Your task to perform on an android device: toggle notification dots Image 0: 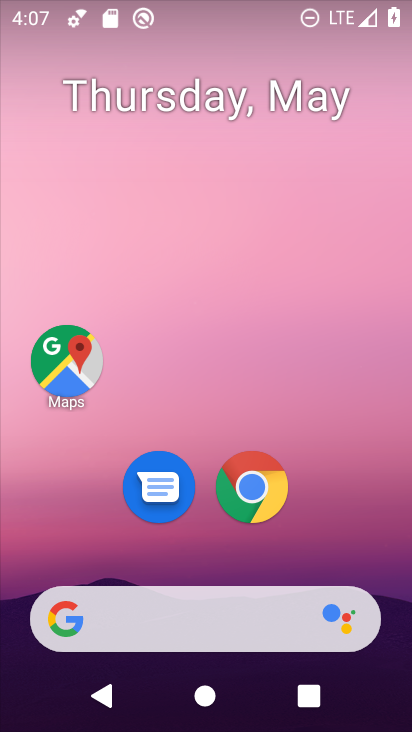
Step 0: drag from (261, 648) to (289, 232)
Your task to perform on an android device: toggle notification dots Image 1: 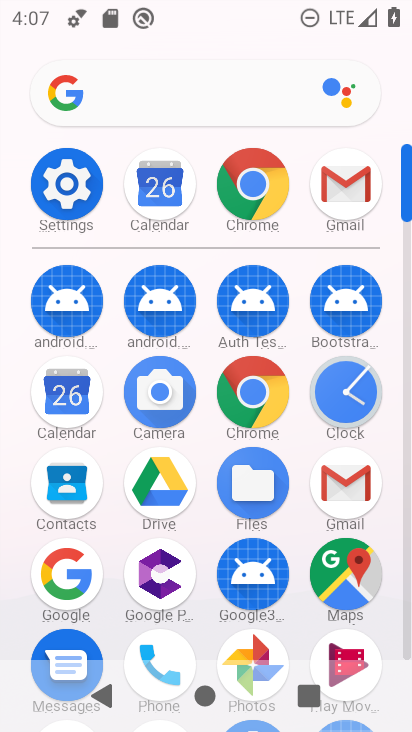
Step 1: click (81, 214)
Your task to perform on an android device: toggle notification dots Image 2: 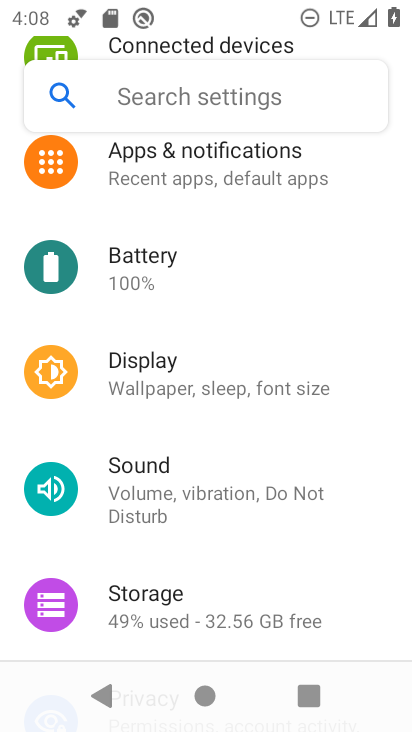
Step 2: click (259, 181)
Your task to perform on an android device: toggle notification dots Image 3: 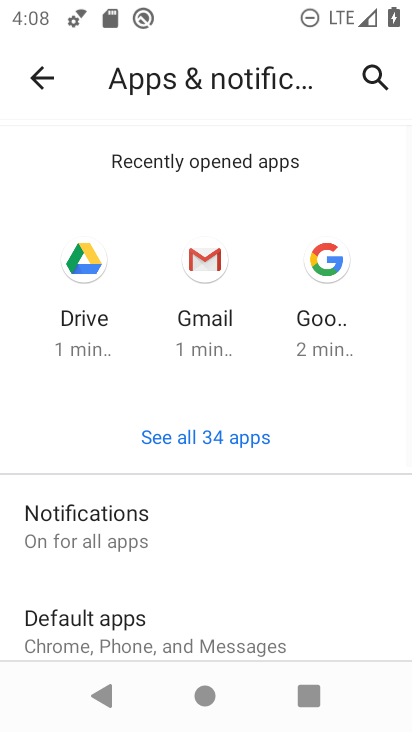
Step 3: drag from (210, 558) to (226, 291)
Your task to perform on an android device: toggle notification dots Image 4: 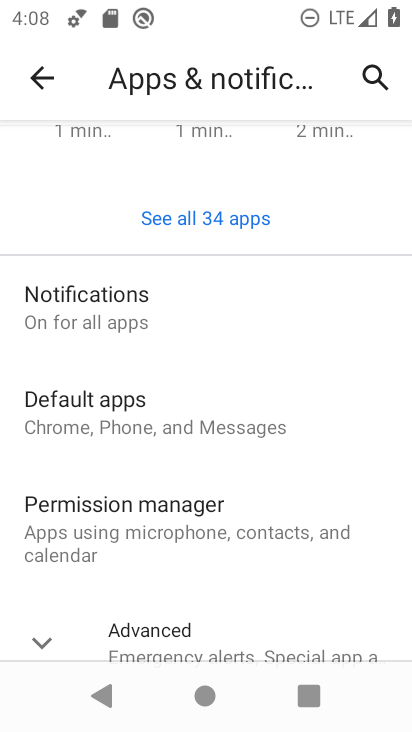
Step 4: drag from (226, 555) to (245, 325)
Your task to perform on an android device: toggle notification dots Image 5: 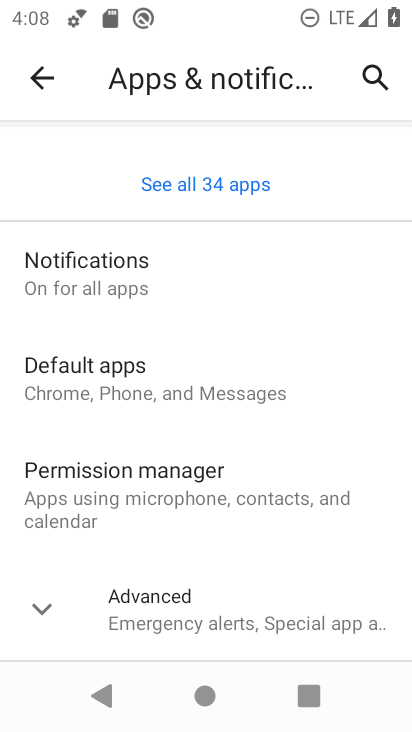
Step 5: click (219, 280)
Your task to perform on an android device: toggle notification dots Image 6: 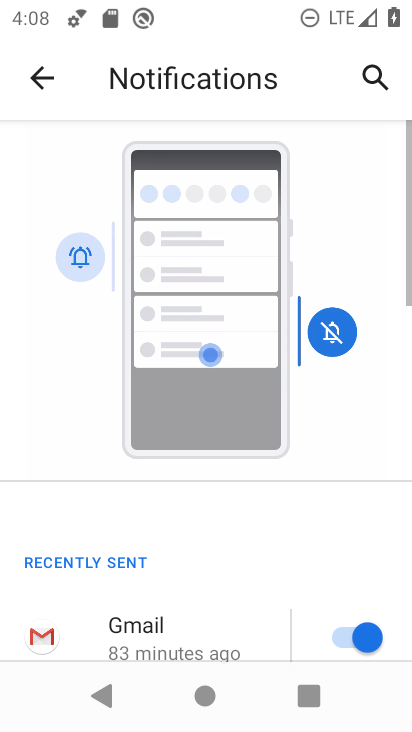
Step 6: drag from (200, 567) to (238, 212)
Your task to perform on an android device: toggle notification dots Image 7: 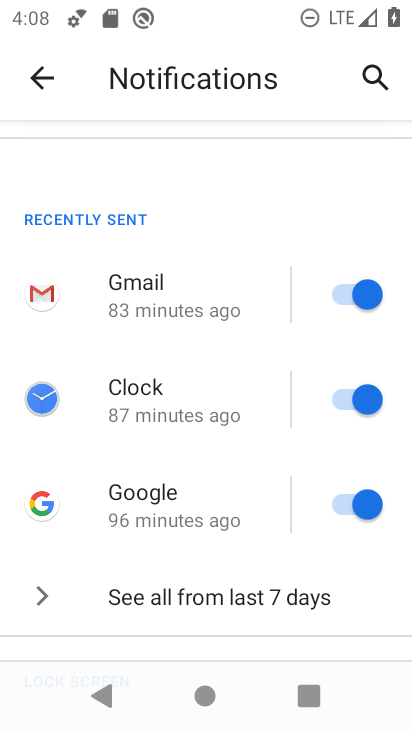
Step 7: drag from (194, 536) to (242, 238)
Your task to perform on an android device: toggle notification dots Image 8: 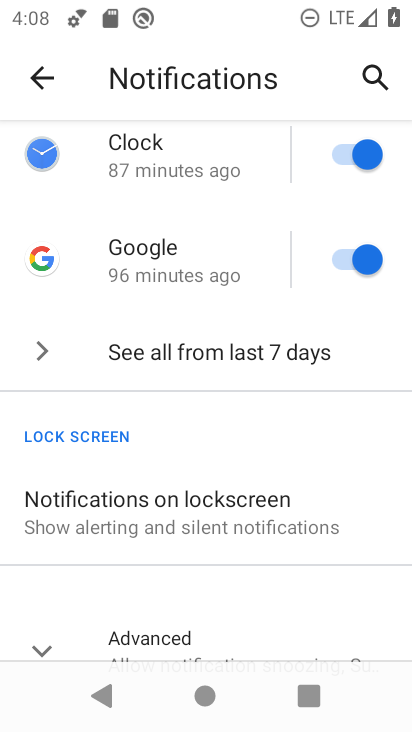
Step 8: drag from (180, 570) to (236, 253)
Your task to perform on an android device: toggle notification dots Image 9: 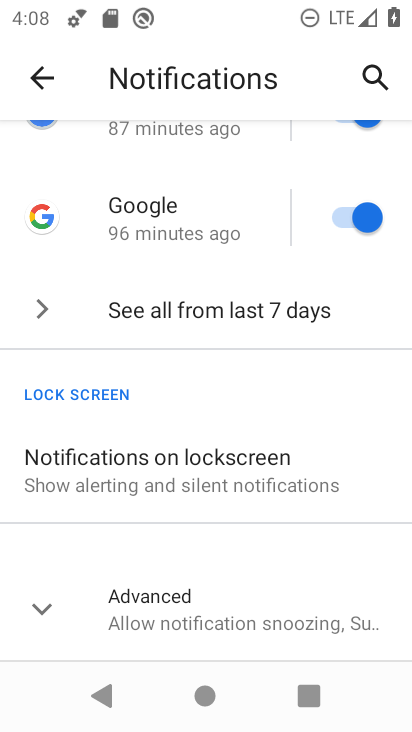
Step 9: click (239, 607)
Your task to perform on an android device: toggle notification dots Image 10: 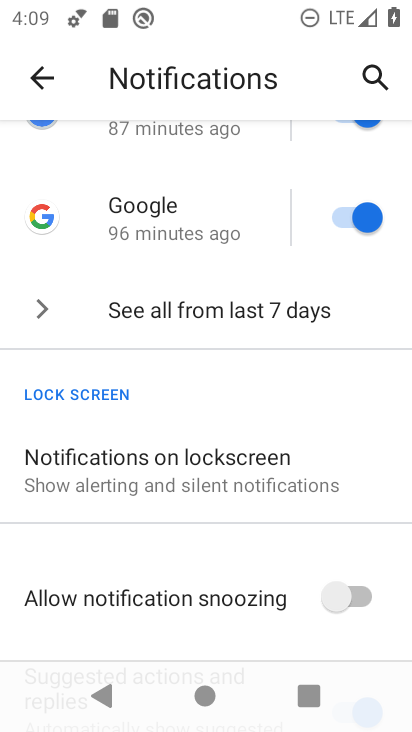
Step 10: drag from (202, 549) to (254, 234)
Your task to perform on an android device: toggle notification dots Image 11: 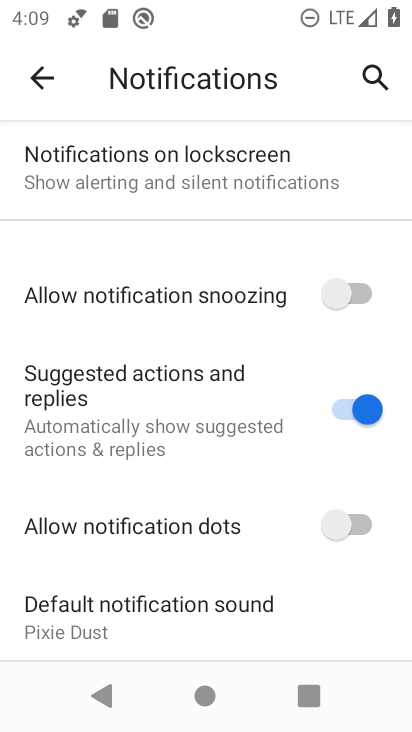
Step 11: click (291, 536)
Your task to perform on an android device: toggle notification dots Image 12: 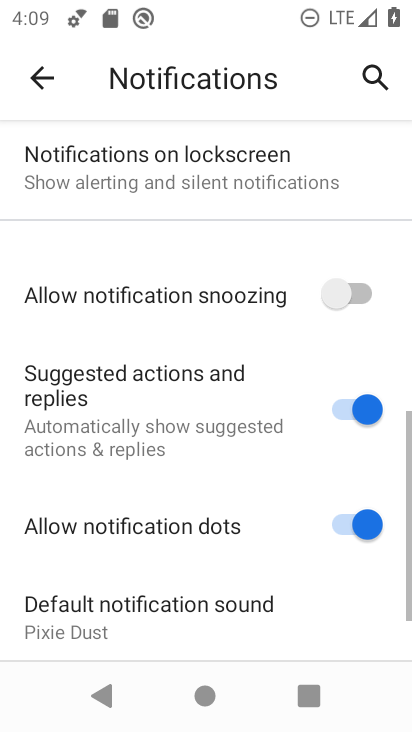
Step 12: task complete